Your task to perform on an android device: turn off airplane mode Image 0: 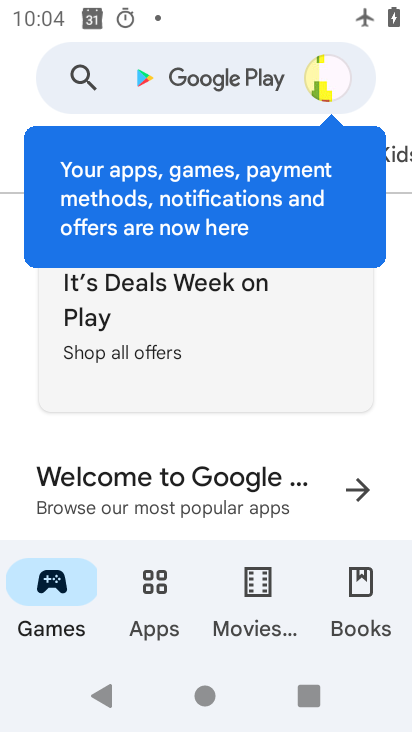
Step 0: press home button
Your task to perform on an android device: turn off airplane mode Image 1: 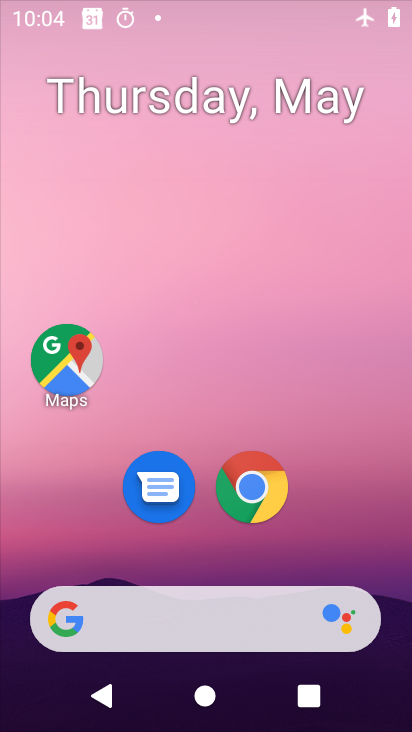
Step 1: drag from (212, 601) to (248, 242)
Your task to perform on an android device: turn off airplane mode Image 2: 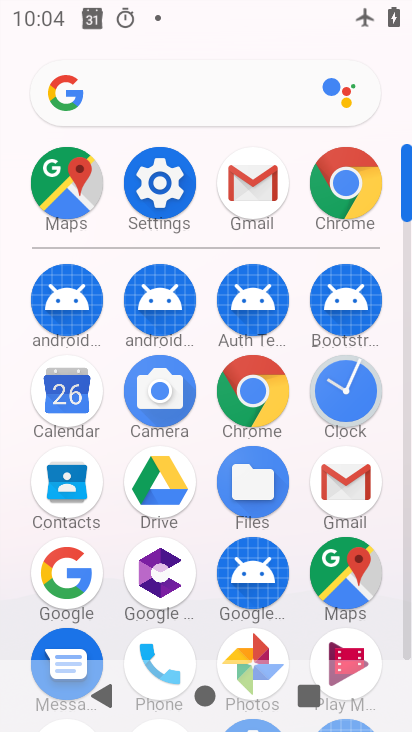
Step 2: click (169, 190)
Your task to perform on an android device: turn off airplane mode Image 3: 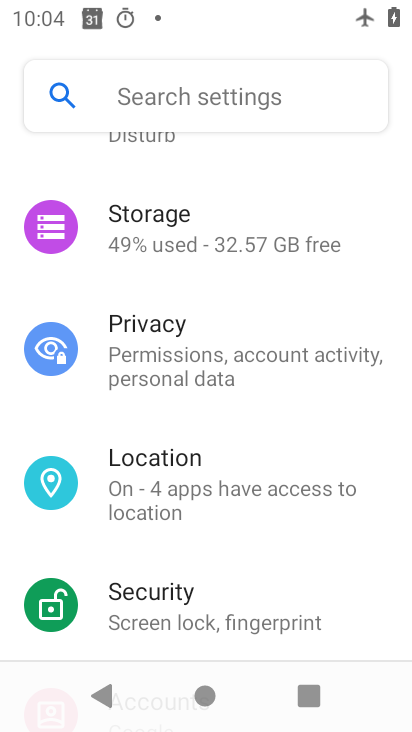
Step 3: drag from (244, 315) to (246, 703)
Your task to perform on an android device: turn off airplane mode Image 4: 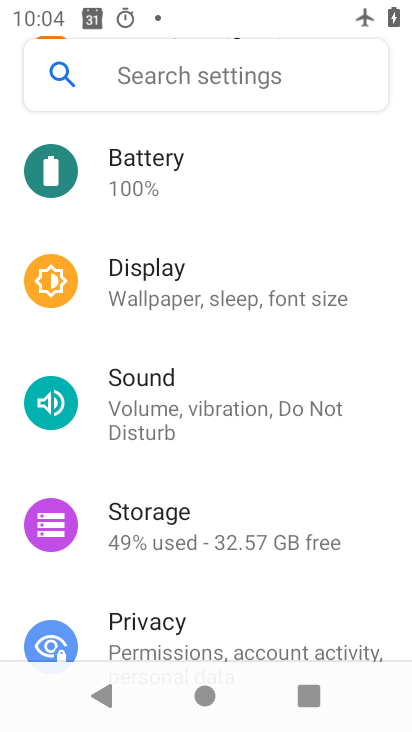
Step 4: drag from (264, 264) to (243, 645)
Your task to perform on an android device: turn off airplane mode Image 5: 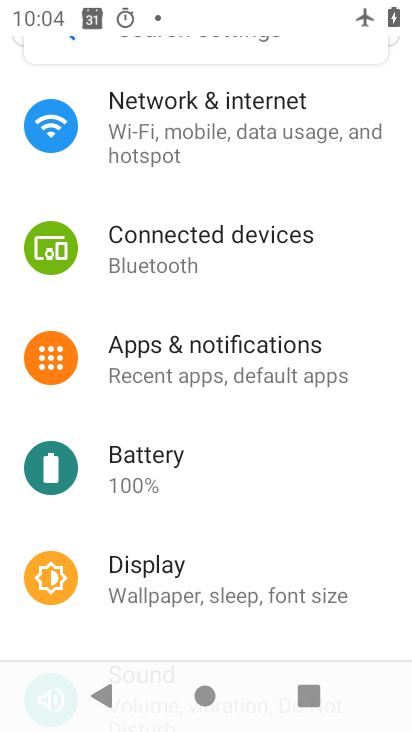
Step 5: drag from (246, 301) to (201, 730)
Your task to perform on an android device: turn off airplane mode Image 6: 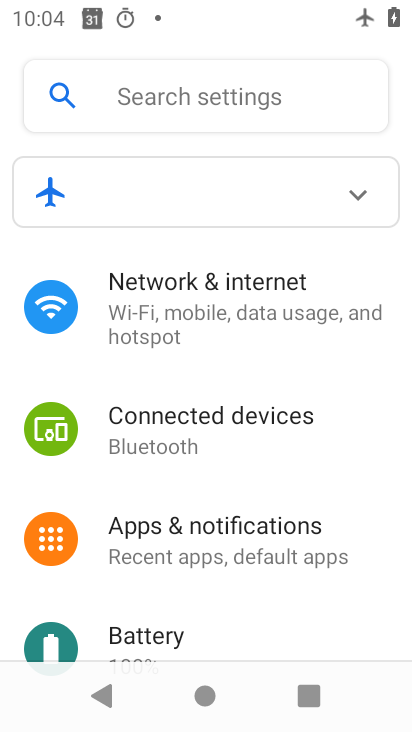
Step 6: click (242, 316)
Your task to perform on an android device: turn off airplane mode Image 7: 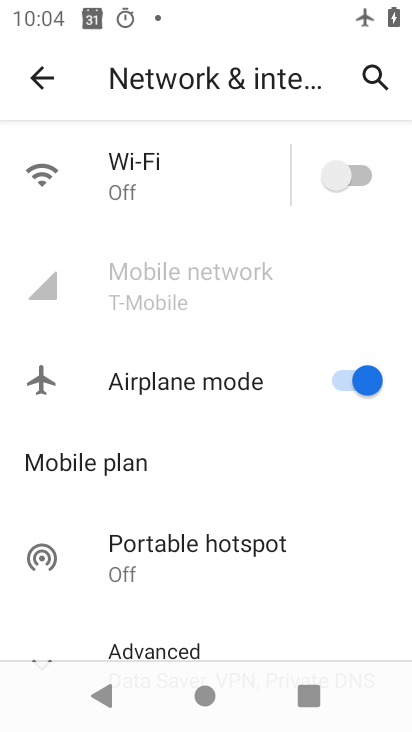
Step 7: click (238, 368)
Your task to perform on an android device: turn off airplane mode Image 8: 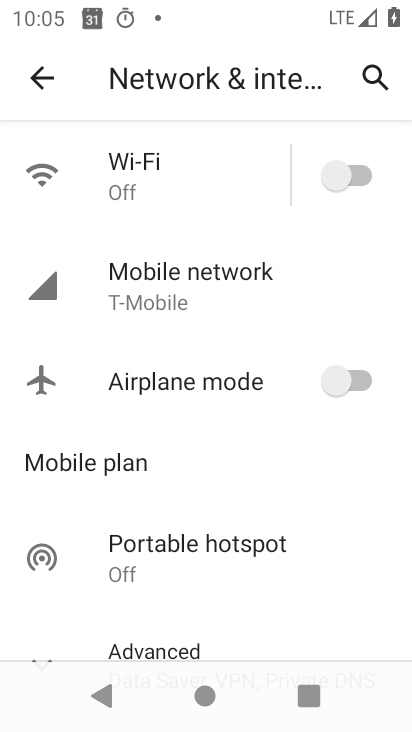
Step 8: task complete